Your task to perform on an android device: Open calendar and show me the first week of next month Image 0: 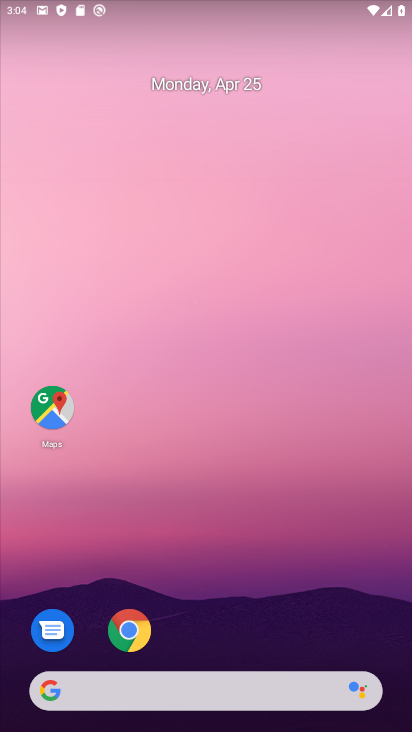
Step 0: press home button
Your task to perform on an android device: Open calendar and show me the first week of next month Image 1: 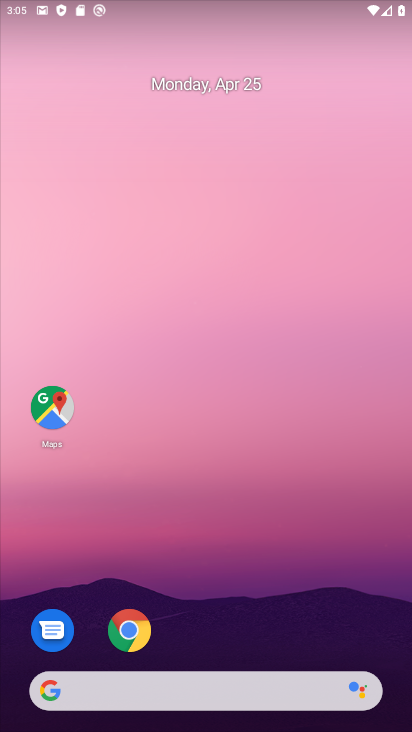
Step 1: drag from (174, 398) to (178, 131)
Your task to perform on an android device: Open calendar and show me the first week of next month Image 2: 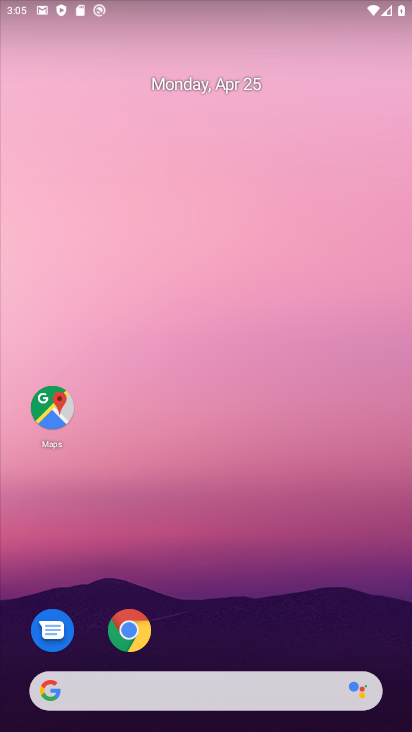
Step 2: drag from (201, 645) to (225, 54)
Your task to perform on an android device: Open calendar and show me the first week of next month Image 3: 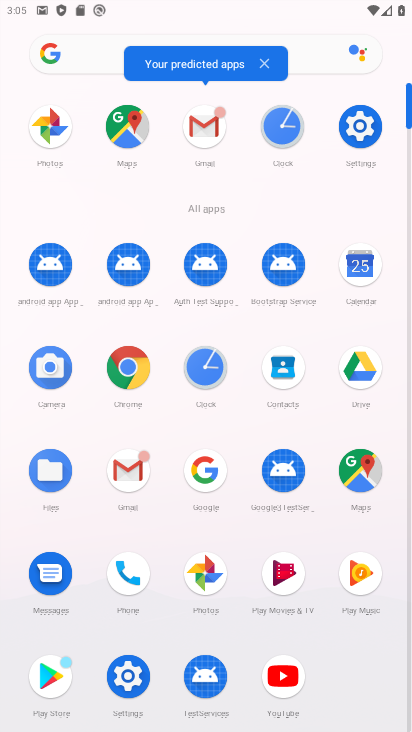
Step 3: click (362, 266)
Your task to perform on an android device: Open calendar and show me the first week of next month Image 4: 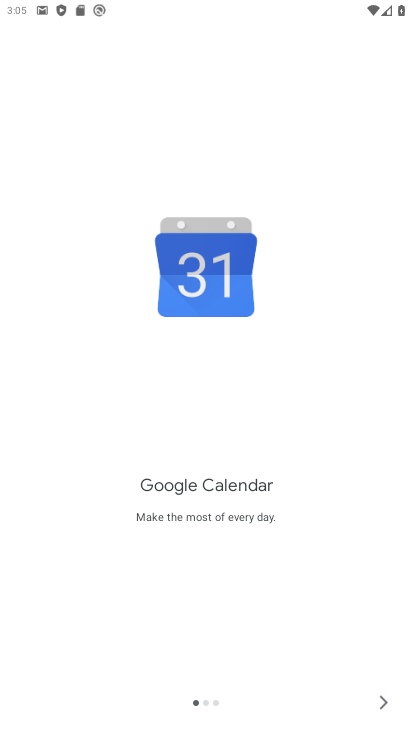
Step 4: click (378, 692)
Your task to perform on an android device: Open calendar and show me the first week of next month Image 5: 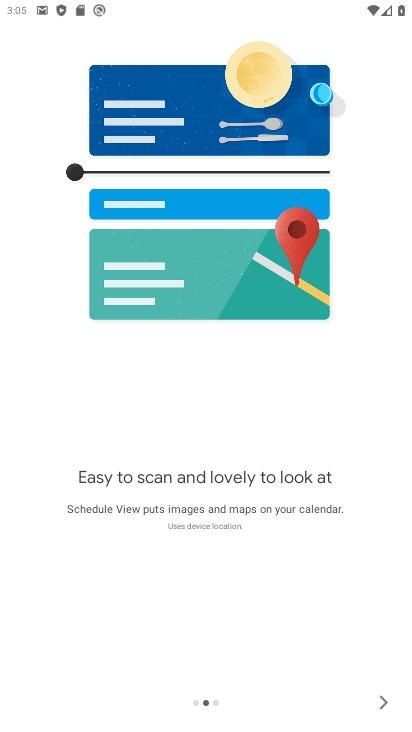
Step 5: click (378, 691)
Your task to perform on an android device: Open calendar and show me the first week of next month Image 6: 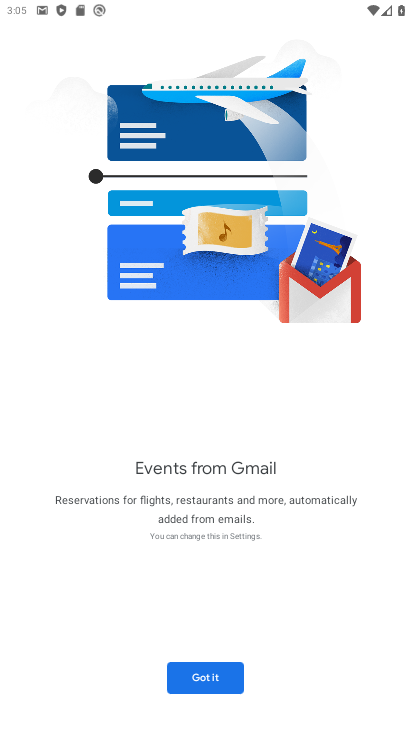
Step 6: click (191, 676)
Your task to perform on an android device: Open calendar and show me the first week of next month Image 7: 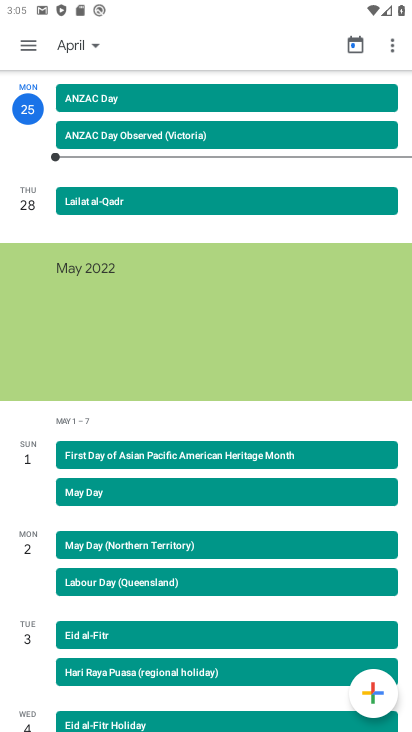
Step 7: click (92, 43)
Your task to perform on an android device: Open calendar and show me the first week of next month Image 8: 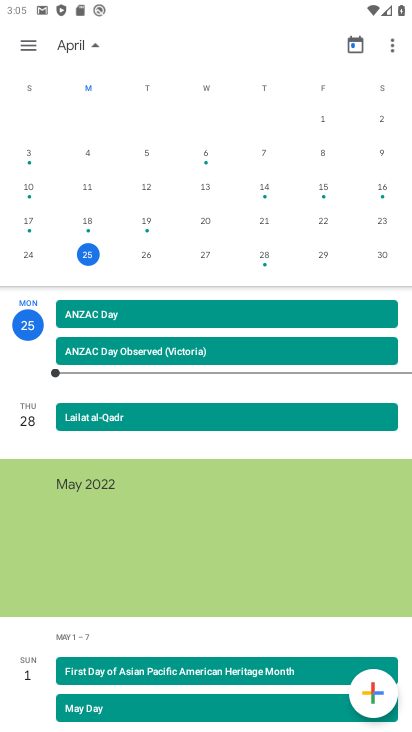
Step 8: drag from (286, 229) to (57, 200)
Your task to perform on an android device: Open calendar and show me the first week of next month Image 9: 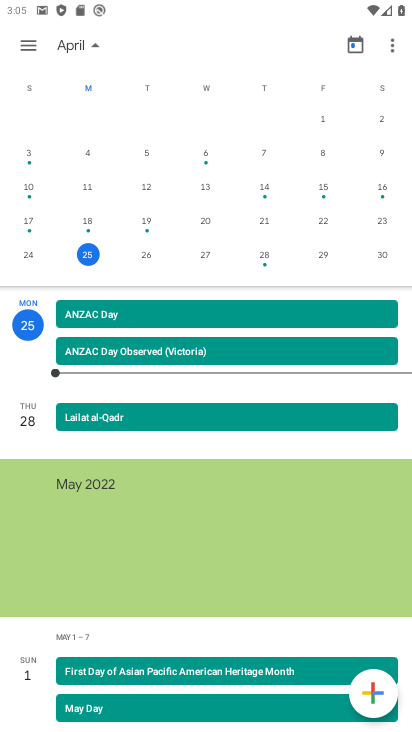
Step 9: drag from (381, 238) to (1, 229)
Your task to perform on an android device: Open calendar and show me the first week of next month Image 10: 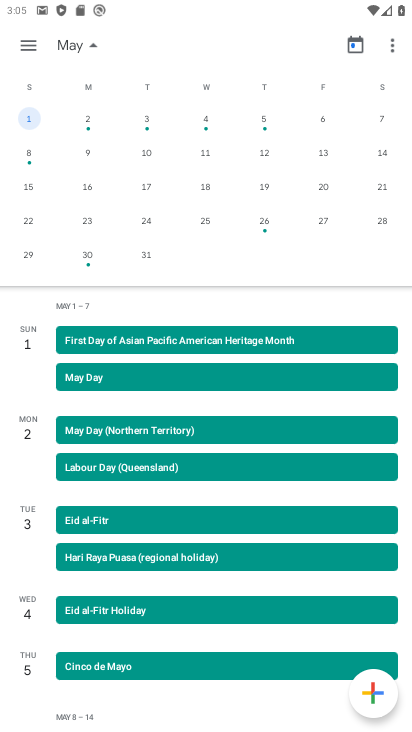
Step 10: click (149, 113)
Your task to perform on an android device: Open calendar and show me the first week of next month Image 11: 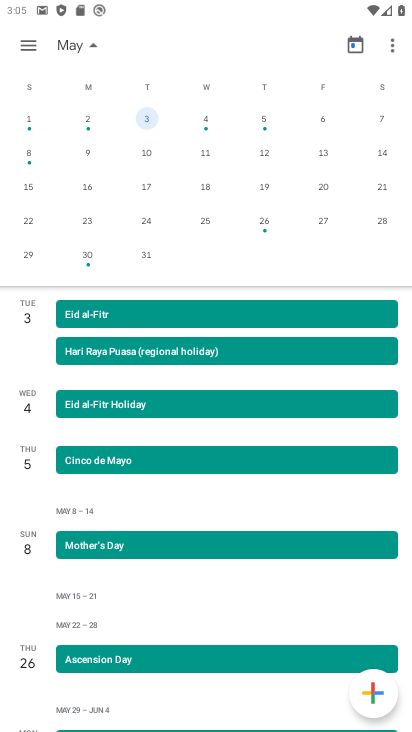
Step 11: click (28, 41)
Your task to perform on an android device: Open calendar and show me the first week of next month Image 12: 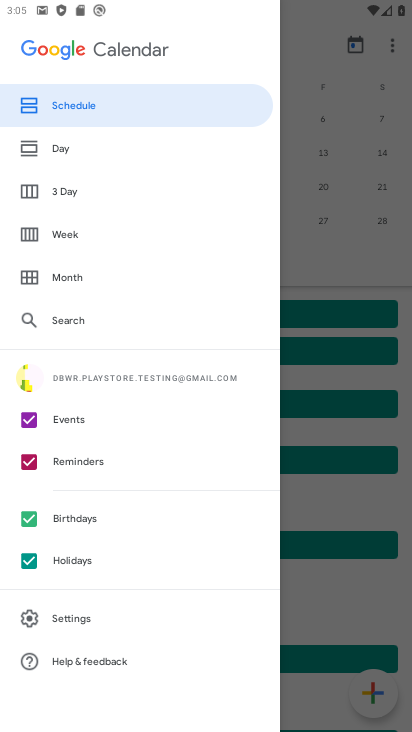
Step 12: click (81, 228)
Your task to perform on an android device: Open calendar and show me the first week of next month Image 13: 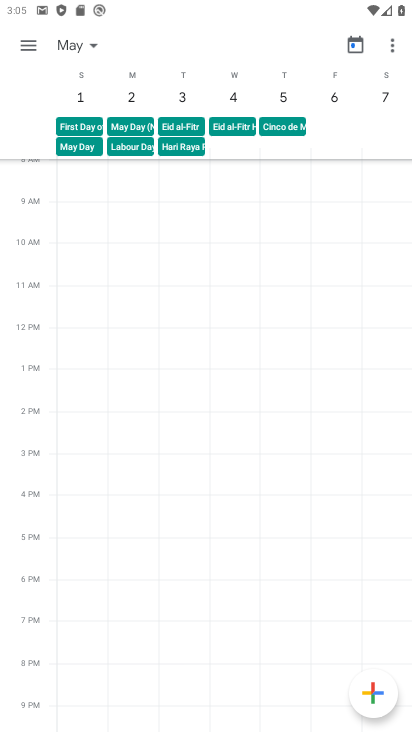
Step 13: task complete